Your task to perform on an android device: Search for "logitech g910" on walmart, select the first entry, add it to the cart, then select checkout. Image 0: 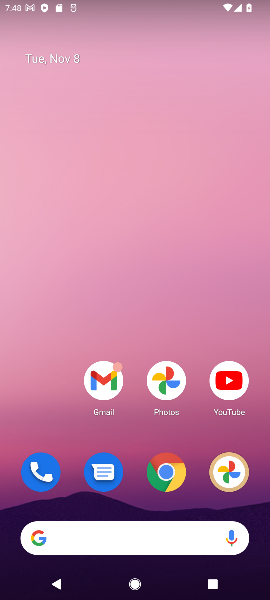
Step 0: press home button
Your task to perform on an android device: Search for "logitech g910" on walmart, select the first entry, add it to the cart, then select checkout. Image 1: 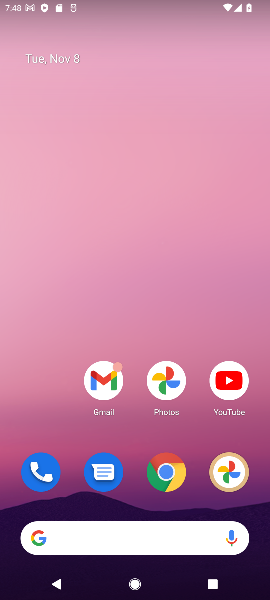
Step 1: click (169, 476)
Your task to perform on an android device: Search for "logitech g910" on walmart, select the first entry, add it to the cart, then select checkout. Image 2: 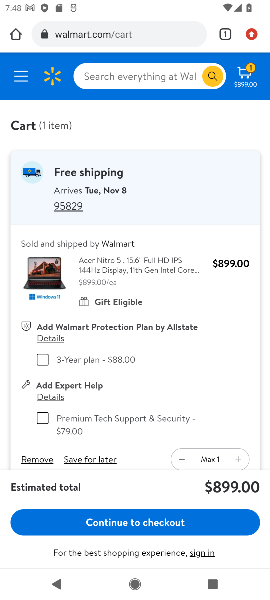
Step 2: click (131, 81)
Your task to perform on an android device: Search for "logitech g910" on walmart, select the first entry, add it to the cart, then select checkout. Image 3: 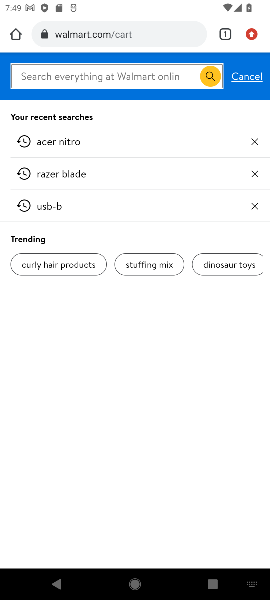
Step 3: type "logitech g910"
Your task to perform on an android device: Search for "logitech g910" on walmart, select the first entry, add it to the cart, then select checkout. Image 4: 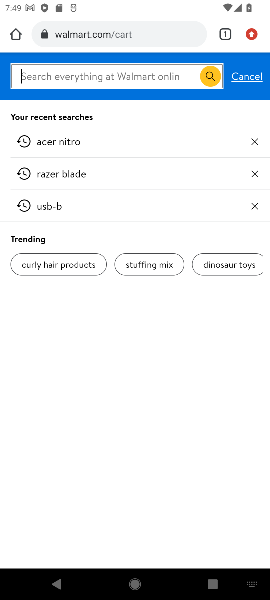
Step 4: press enter
Your task to perform on an android device: Search for "logitech g910" on walmart, select the first entry, add it to the cart, then select checkout. Image 5: 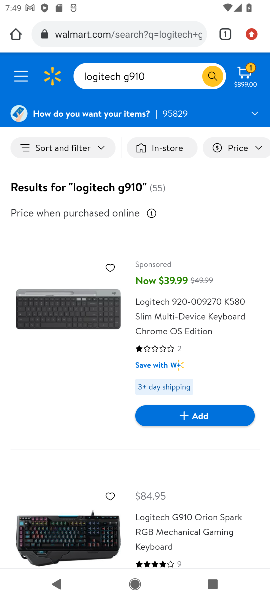
Step 5: task complete